Your task to perform on an android device: Go to Yahoo.com Image 0: 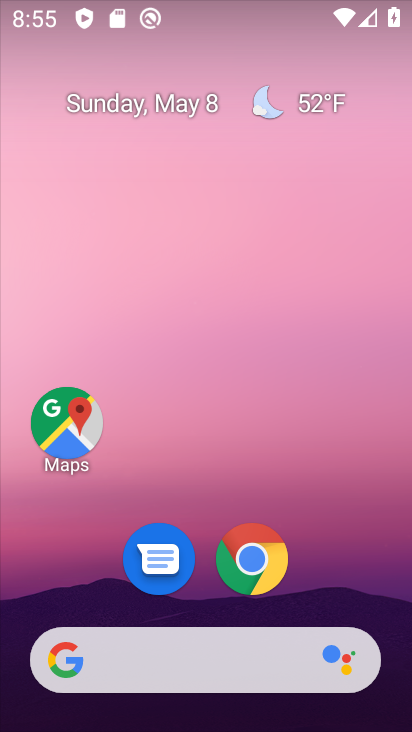
Step 0: click (266, 603)
Your task to perform on an android device: Go to Yahoo.com Image 1: 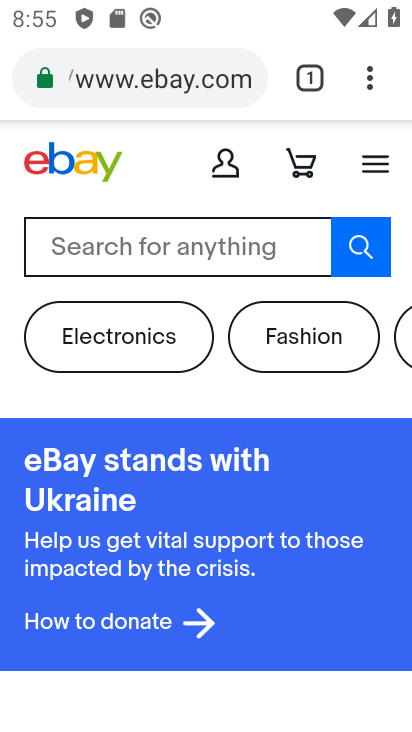
Step 1: click (294, 72)
Your task to perform on an android device: Go to Yahoo.com Image 2: 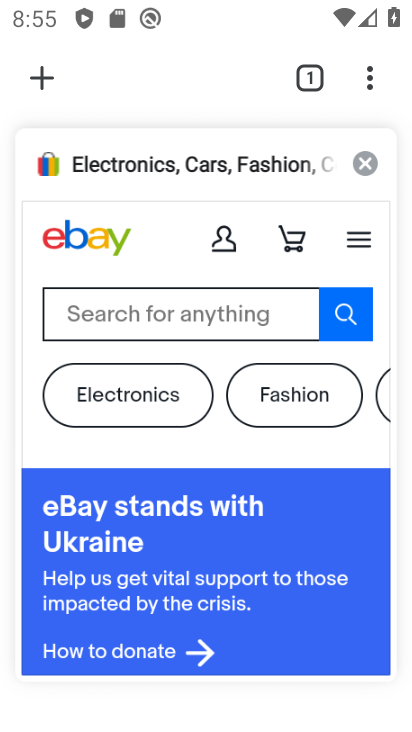
Step 2: click (362, 159)
Your task to perform on an android device: Go to Yahoo.com Image 3: 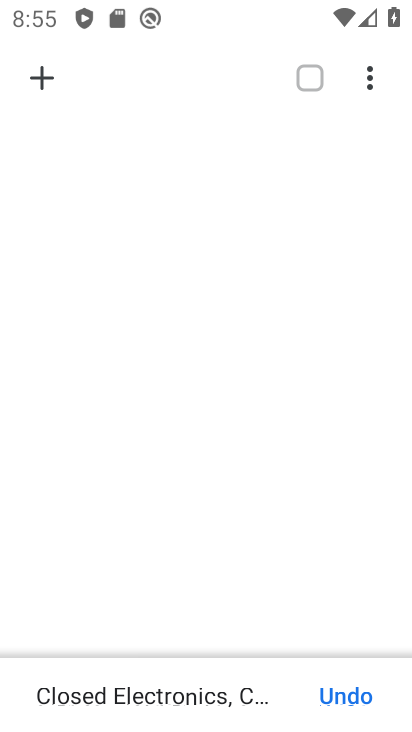
Step 3: click (36, 76)
Your task to perform on an android device: Go to Yahoo.com Image 4: 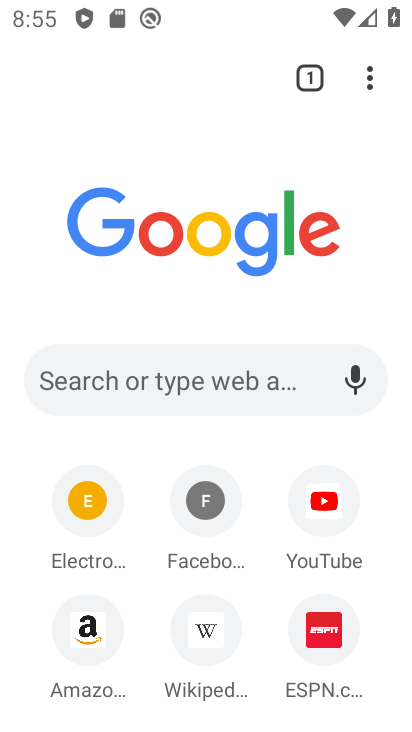
Step 4: drag from (251, 471) to (251, 299)
Your task to perform on an android device: Go to Yahoo.com Image 5: 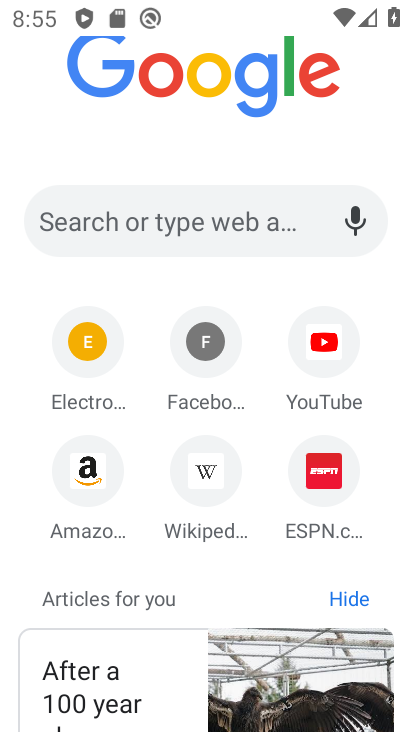
Step 5: click (206, 228)
Your task to perform on an android device: Go to Yahoo.com Image 6: 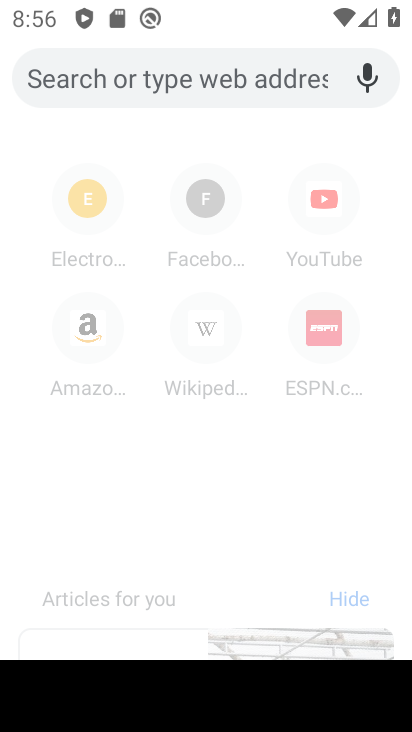
Step 6: type "yahoo.com"
Your task to perform on an android device: Go to Yahoo.com Image 7: 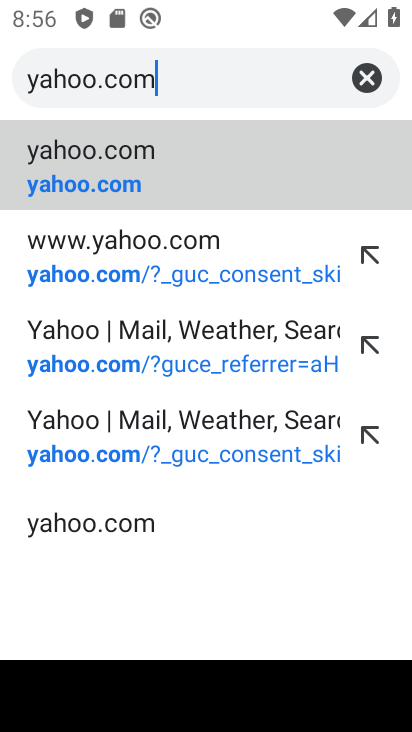
Step 7: click (153, 179)
Your task to perform on an android device: Go to Yahoo.com Image 8: 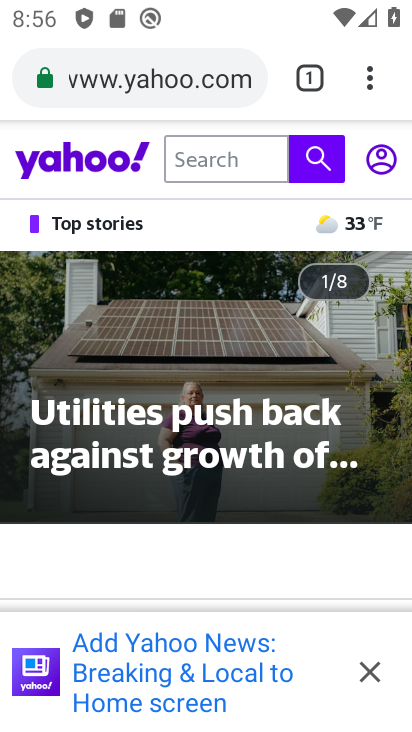
Step 8: task complete